Your task to perform on an android device: Open wifi settings Image 0: 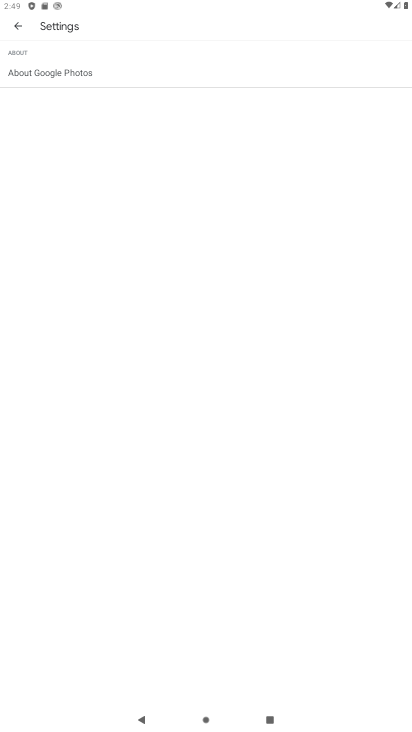
Step 0: drag from (81, 1) to (101, 483)
Your task to perform on an android device: Open wifi settings Image 1: 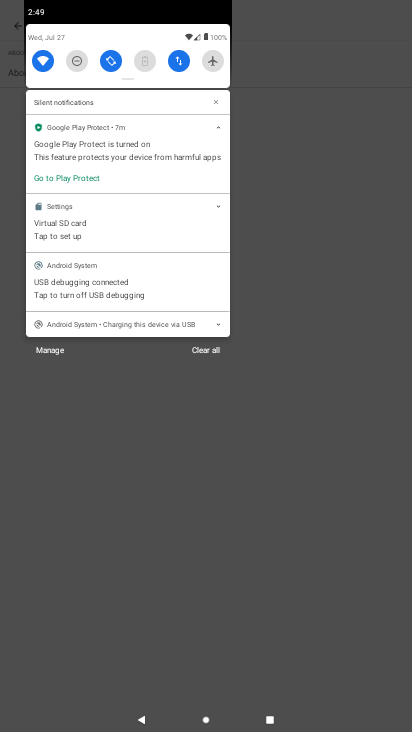
Step 1: click (41, 60)
Your task to perform on an android device: Open wifi settings Image 2: 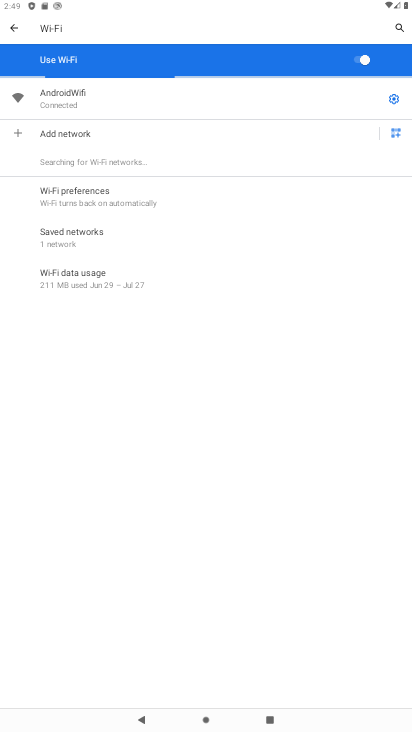
Step 2: task complete